Your task to perform on an android device: turn on showing notifications on the lock screen Image 0: 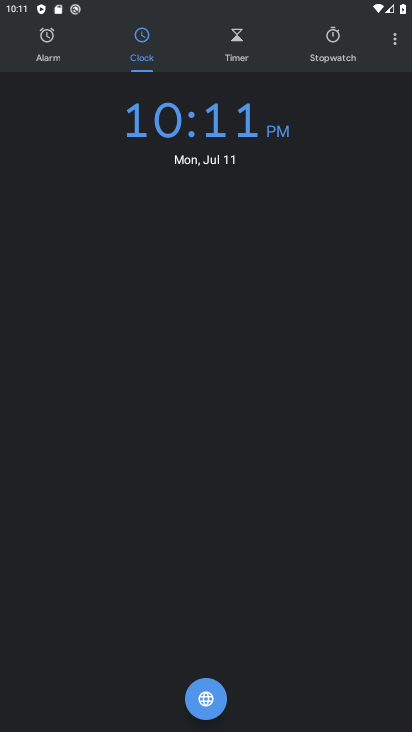
Step 0: press home button
Your task to perform on an android device: turn on showing notifications on the lock screen Image 1: 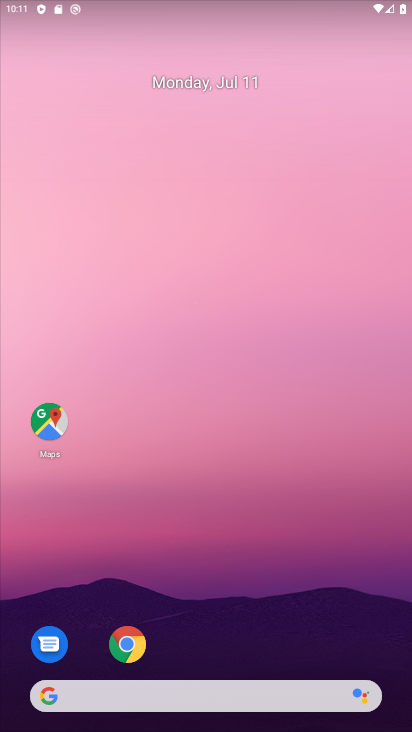
Step 1: drag from (212, 638) to (277, 0)
Your task to perform on an android device: turn on showing notifications on the lock screen Image 2: 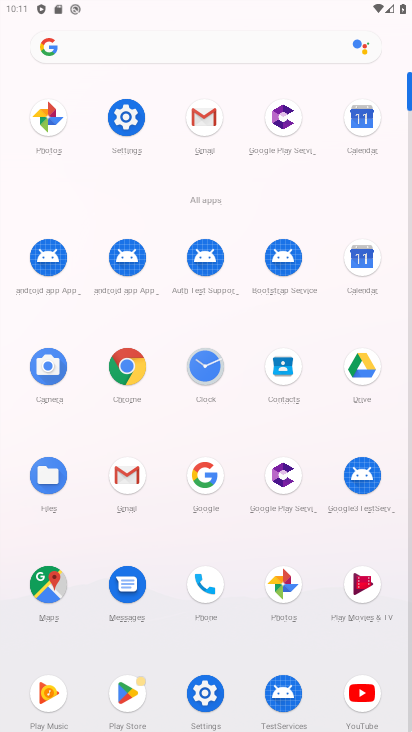
Step 2: click (223, 688)
Your task to perform on an android device: turn on showing notifications on the lock screen Image 3: 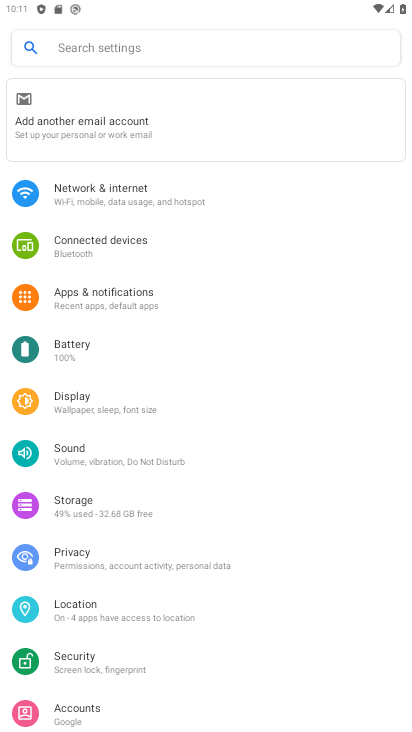
Step 3: click (127, 300)
Your task to perform on an android device: turn on showing notifications on the lock screen Image 4: 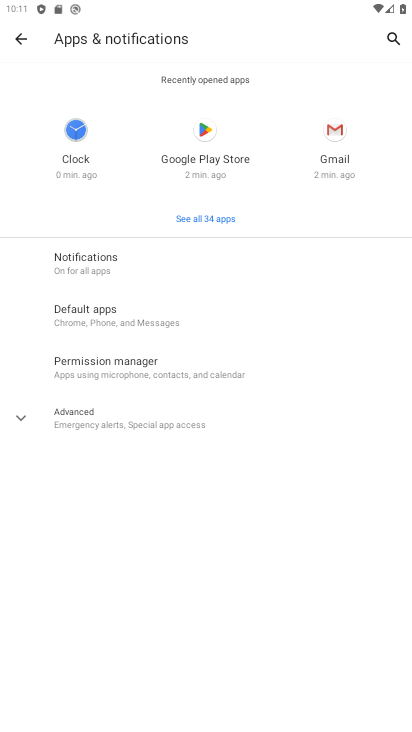
Step 4: click (115, 261)
Your task to perform on an android device: turn on showing notifications on the lock screen Image 5: 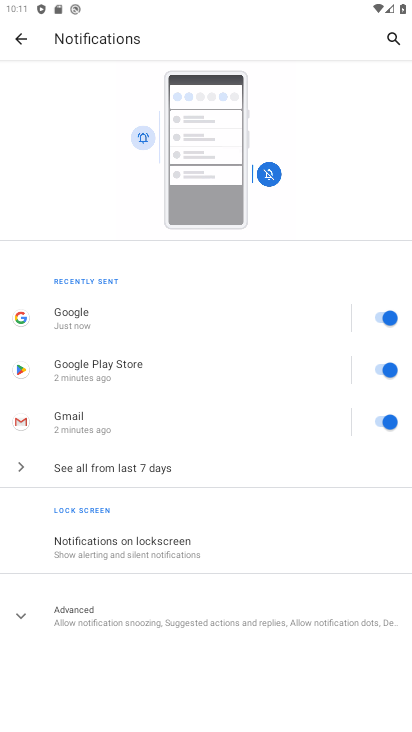
Step 5: click (110, 609)
Your task to perform on an android device: turn on showing notifications on the lock screen Image 6: 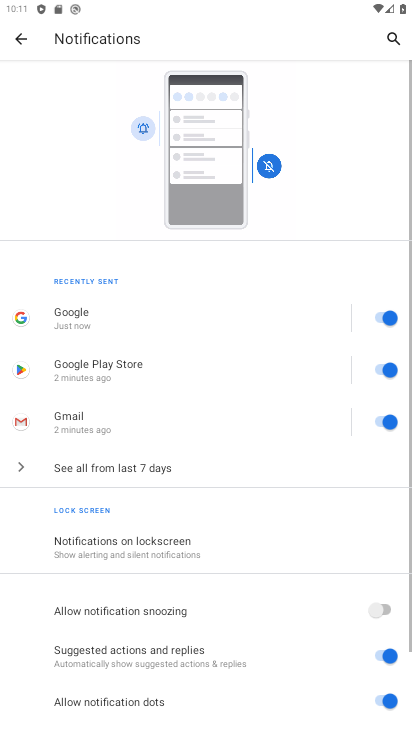
Step 6: drag from (118, 654) to (158, 445)
Your task to perform on an android device: turn on showing notifications on the lock screen Image 7: 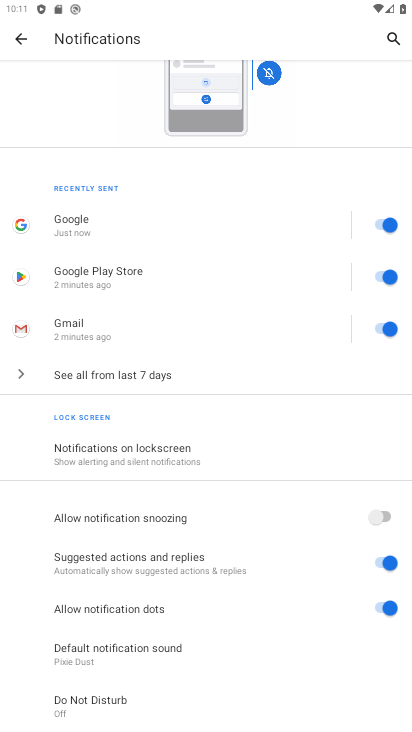
Step 7: click (119, 449)
Your task to perform on an android device: turn on showing notifications on the lock screen Image 8: 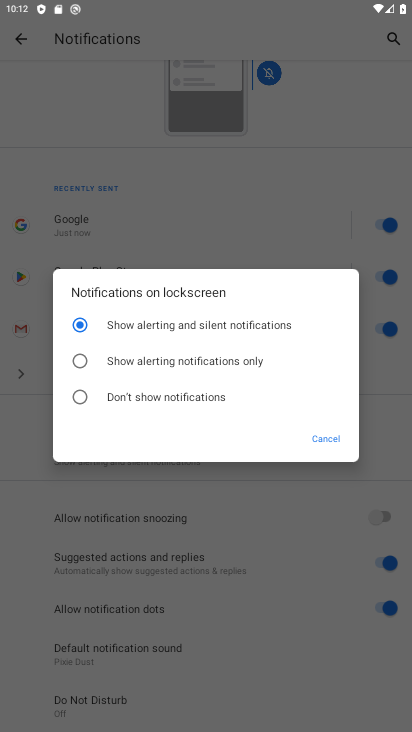
Step 8: task complete